Your task to perform on an android device: Go to internet settings Image 0: 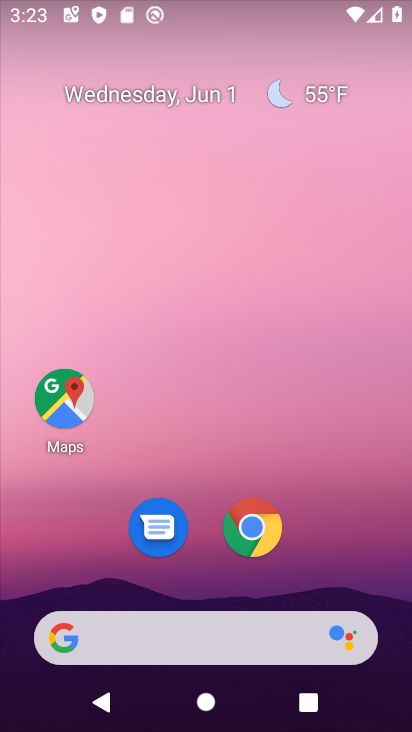
Step 0: drag from (351, 475) to (369, 51)
Your task to perform on an android device: Go to internet settings Image 1: 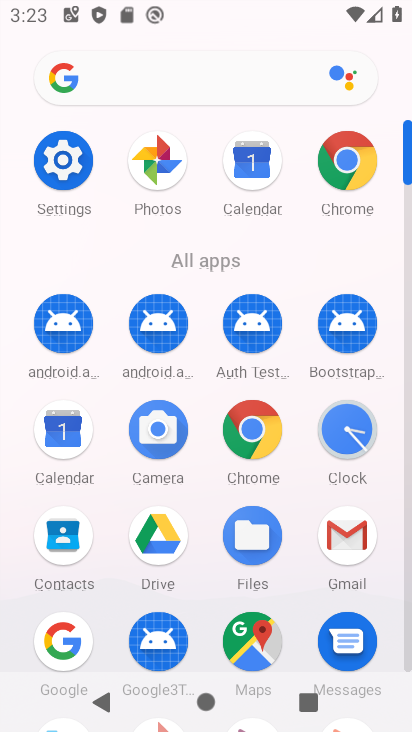
Step 1: click (53, 184)
Your task to perform on an android device: Go to internet settings Image 2: 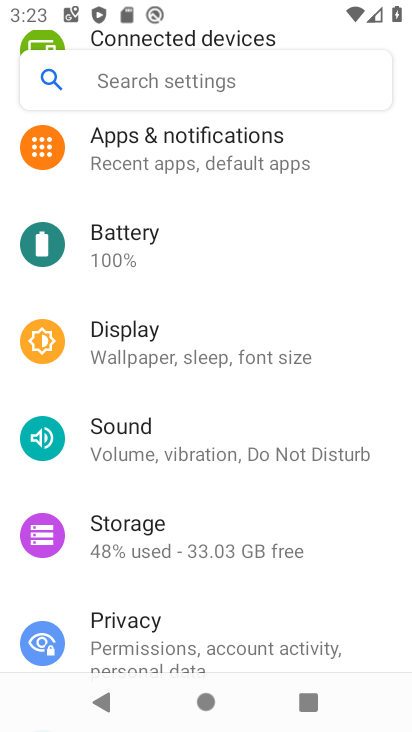
Step 2: drag from (153, 171) to (158, 695)
Your task to perform on an android device: Go to internet settings Image 3: 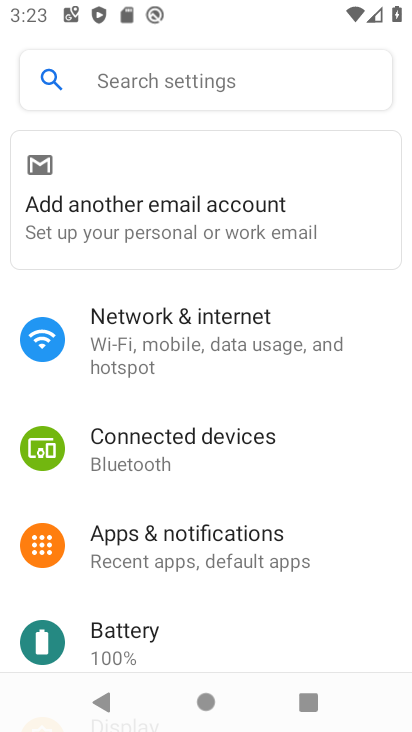
Step 3: click (193, 323)
Your task to perform on an android device: Go to internet settings Image 4: 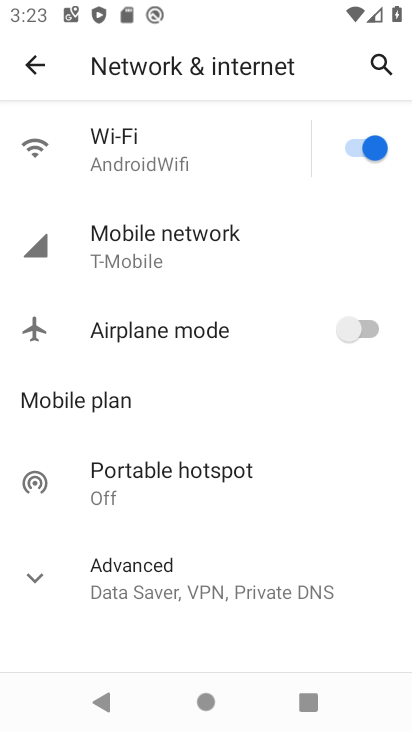
Step 4: task complete